Your task to perform on an android device: check data usage Image 0: 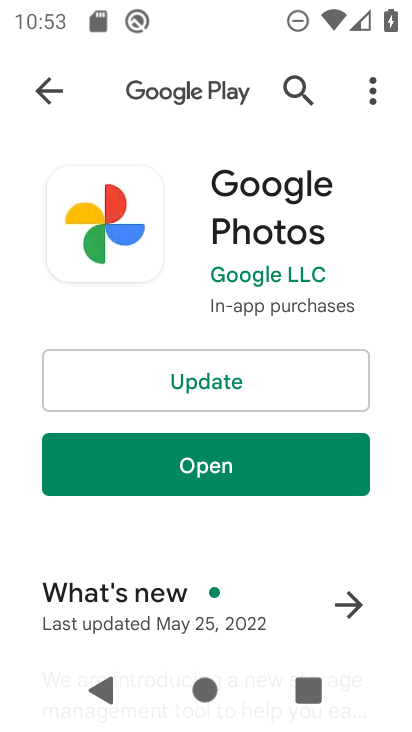
Step 0: press home button
Your task to perform on an android device: check data usage Image 1: 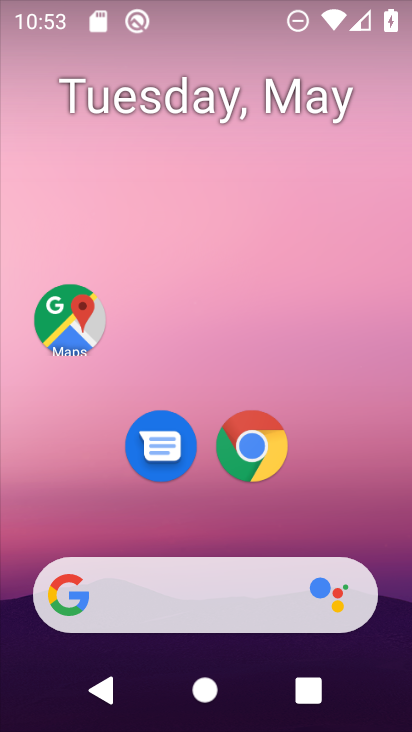
Step 1: drag from (203, 513) to (284, 73)
Your task to perform on an android device: check data usage Image 2: 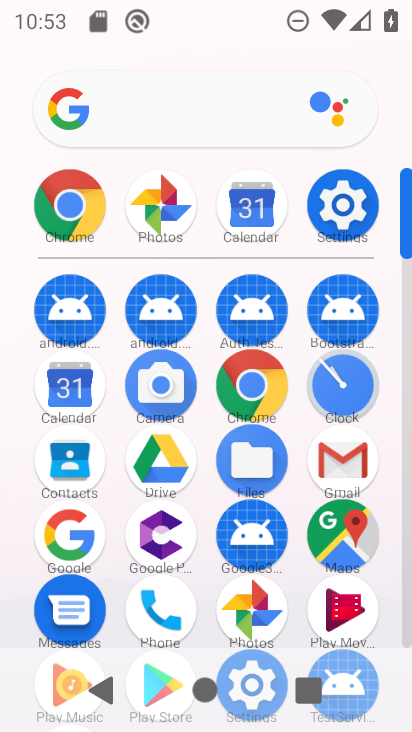
Step 2: click (349, 231)
Your task to perform on an android device: check data usage Image 3: 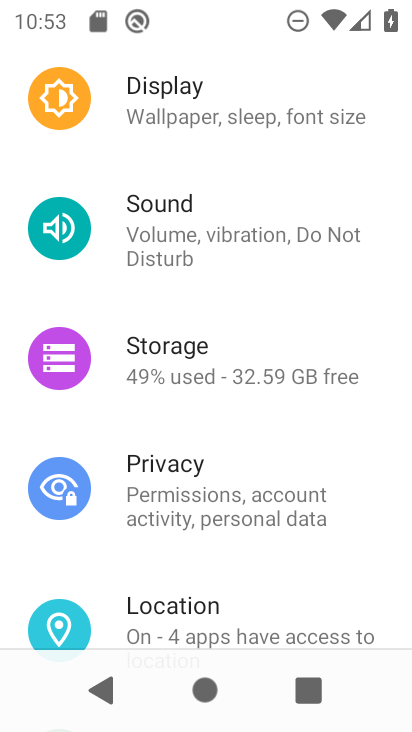
Step 3: drag from (219, 227) to (185, 469)
Your task to perform on an android device: check data usage Image 4: 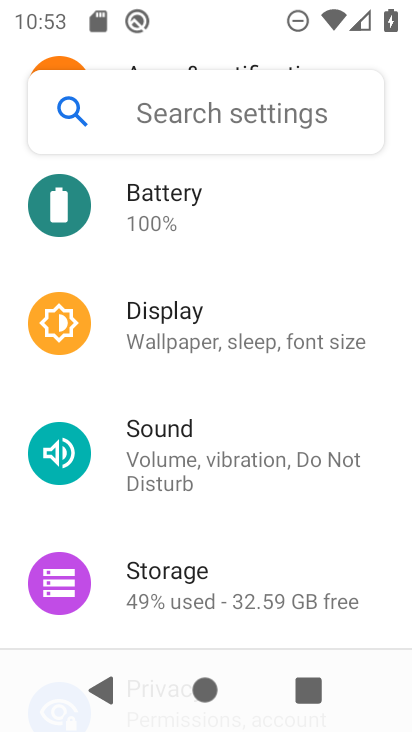
Step 4: drag from (185, 259) to (159, 461)
Your task to perform on an android device: check data usage Image 5: 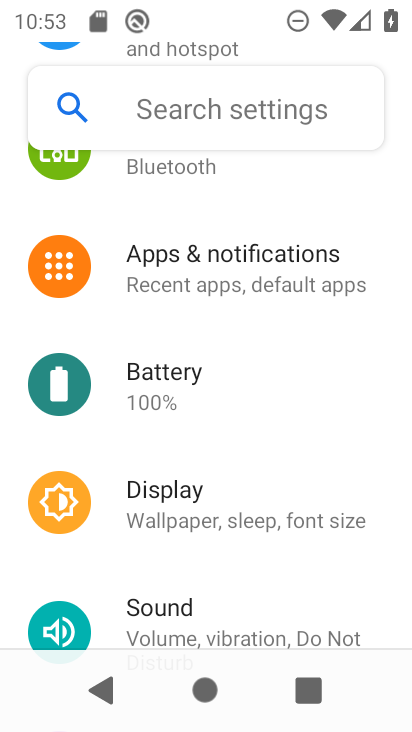
Step 5: drag from (196, 266) to (201, 584)
Your task to perform on an android device: check data usage Image 6: 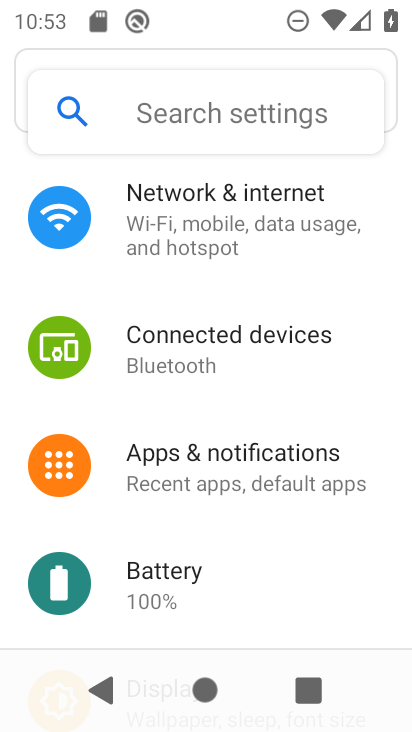
Step 6: click (204, 239)
Your task to perform on an android device: check data usage Image 7: 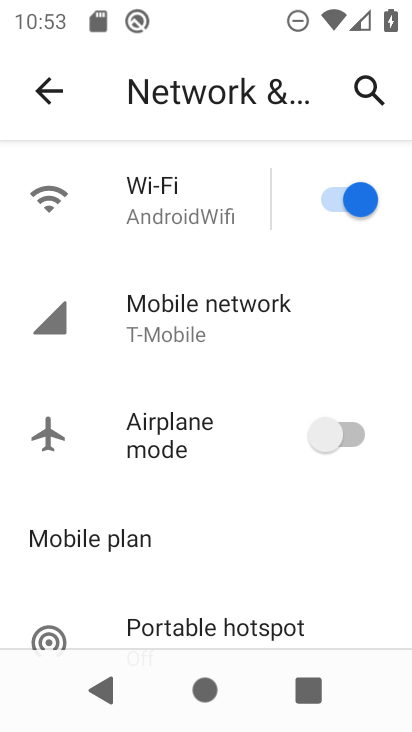
Step 7: click (189, 335)
Your task to perform on an android device: check data usage Image 8: 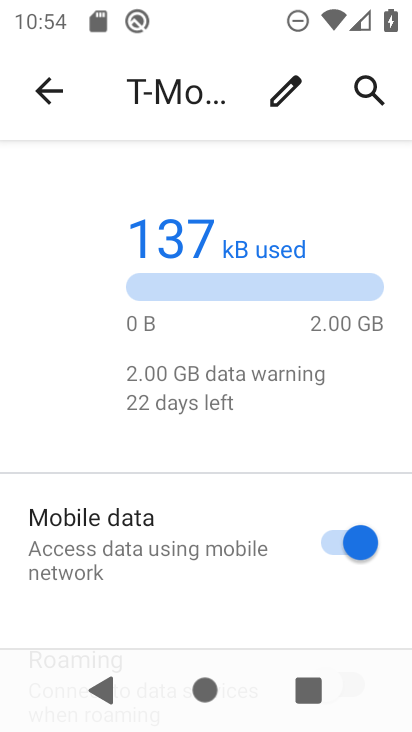
Step 8: drag from (165, 511) to (221, 233)
Your task to perform on an android device: check data usage Image 9: 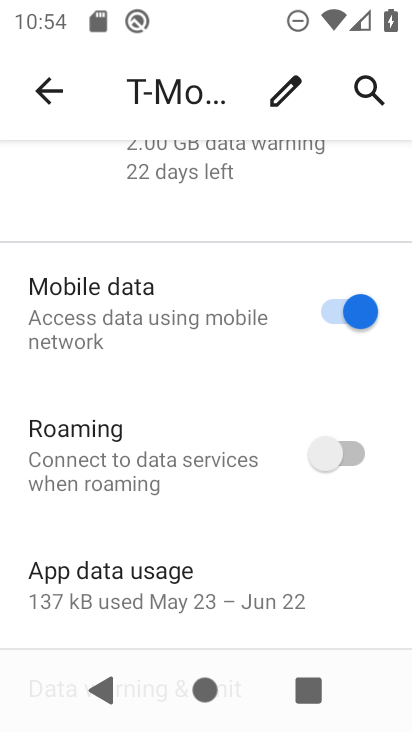
Step 9: click (150, 586)
Your task to perform on an android device: check data usage Image 10: 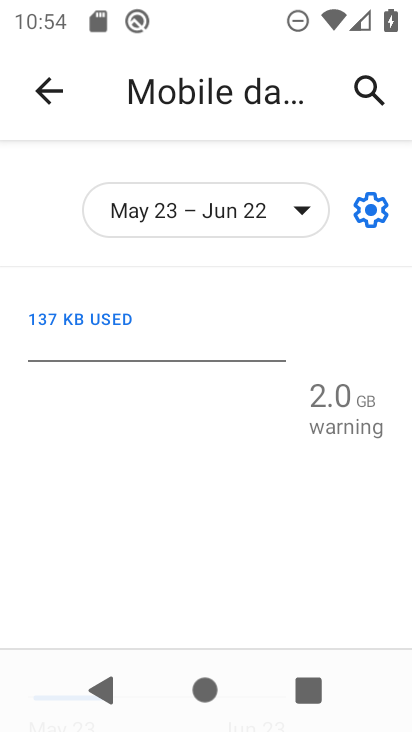
Step 10: task complete